Your task to perform on an android device: create a new album in the google photos Image 0: 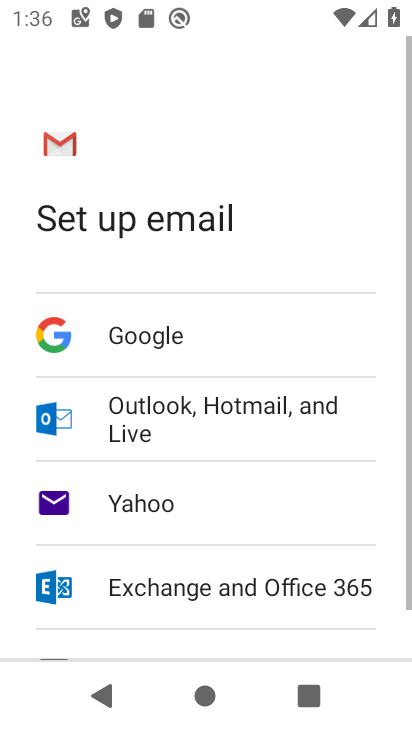
Step 0: press home button
Your task to perform on an android device: create a new album in the google photos Image 1: 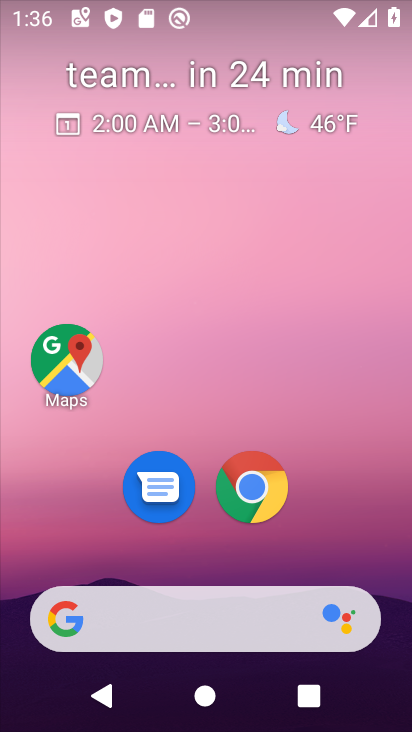
Step 1: drag from (347, 496) to (309, 128)
Your task to perform on an android device: create a new album in the google photos Image 2: 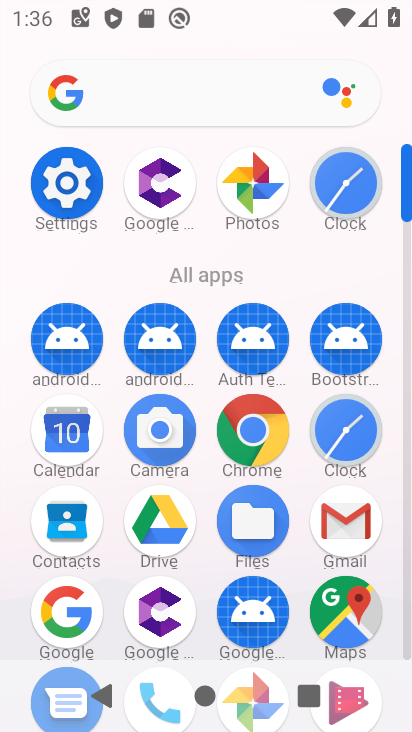
Step 2: drag from (302, 567) to (309, 284)
Your task to perform on an android device: create a new album in the google photos Image 3: 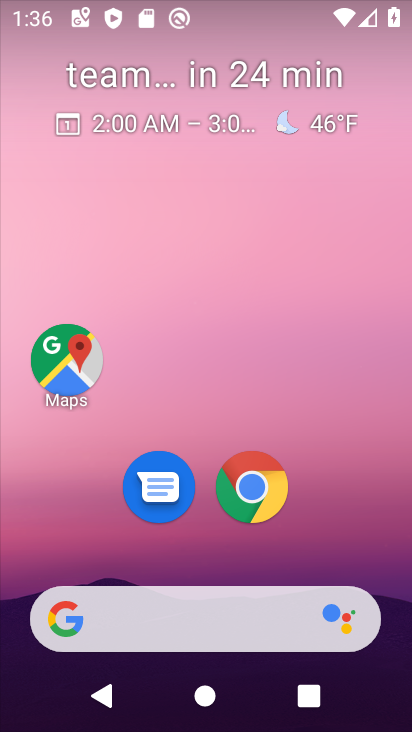
Step 3: drag from (343, 512) to (304, 132)
Your task to perform on an android device: create a new album in the google photos Image 4: 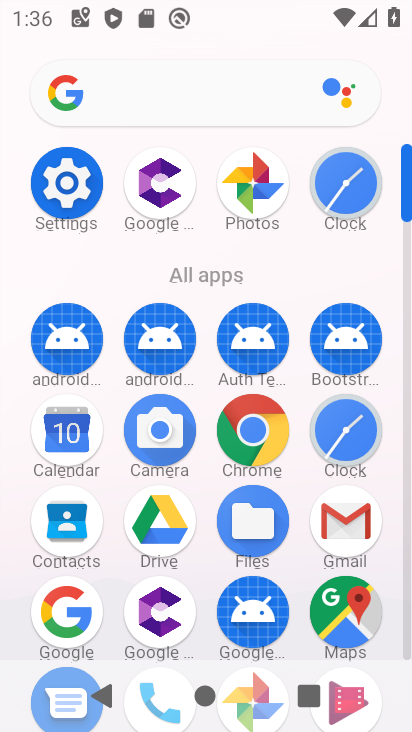
Step 4: drag from (301, 576) to (309, 279)
Your task to perform on an android device: create a new album in the google photos Image 5: 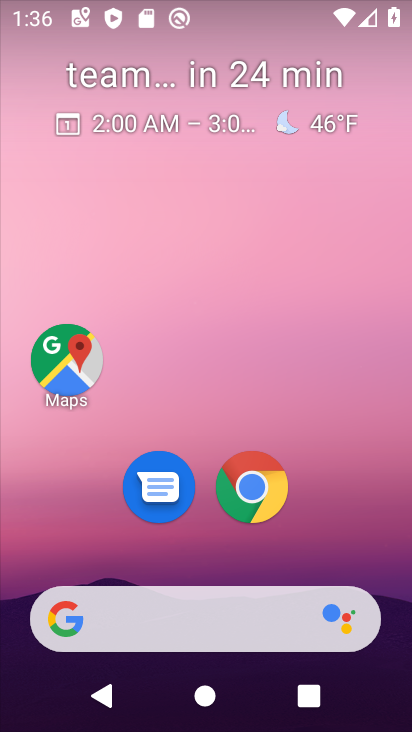
Step 5: drag from (344, 556) to (266, 110)
Your task to perform on an android device: create a new album in the google photos Image 6: 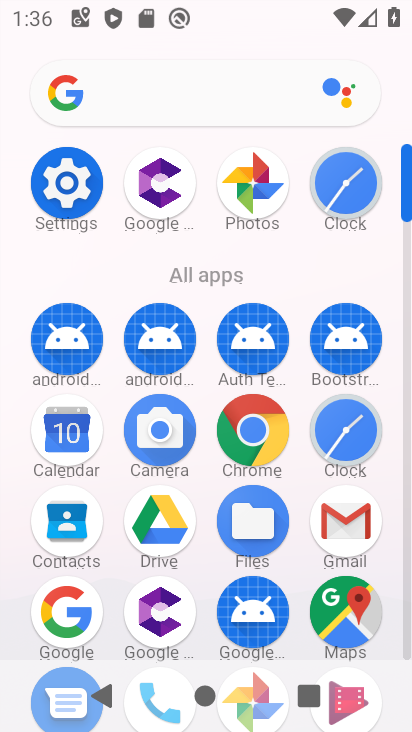
Step 6: drag from (295, 562) to (291, 226)
Your task to perform on an android device: create a new album in the google photos Image 7: 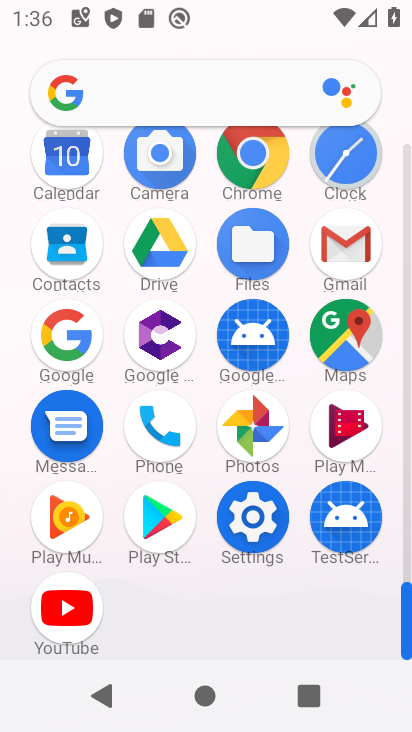
Step 7: click (245, 445)
Your task to perform on an android device: create a new album in the google photos Image 8: 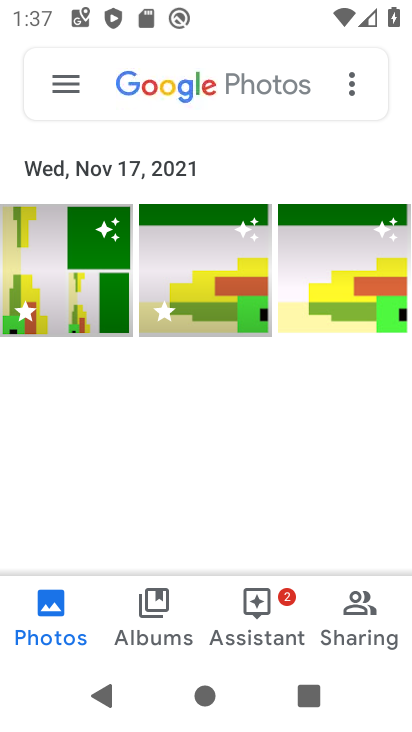
Step 8: click (170, 634)
Your task to perform on an android device: create a new album in the google photos Image 9: 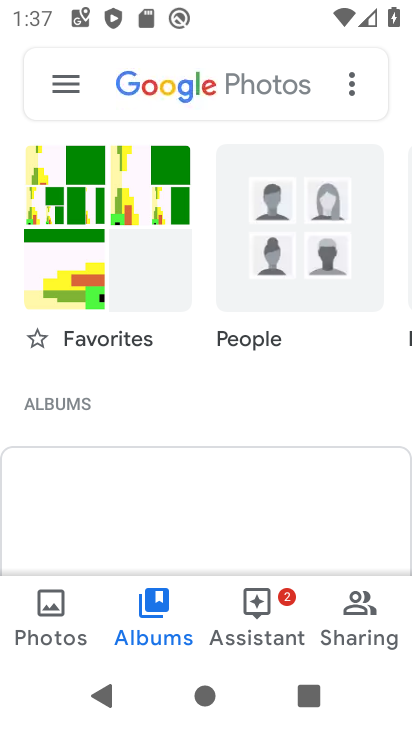
Step 9: click (355, 81)
Your task to perform on an android device: create a new album in the google photos Image 10: 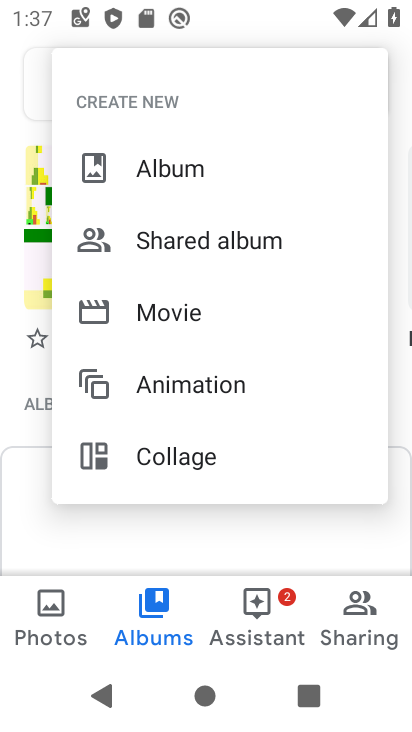
Step 10: click (202, 164)
Your task to perform on an android device: create a new album in the google photos Image 11: 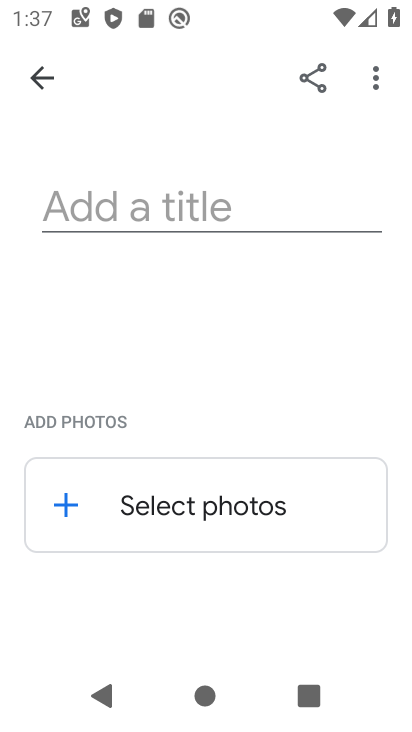
Step 11: click (216, 217)
Your task to perform on an android device: create a new album in the google photos Image 12: 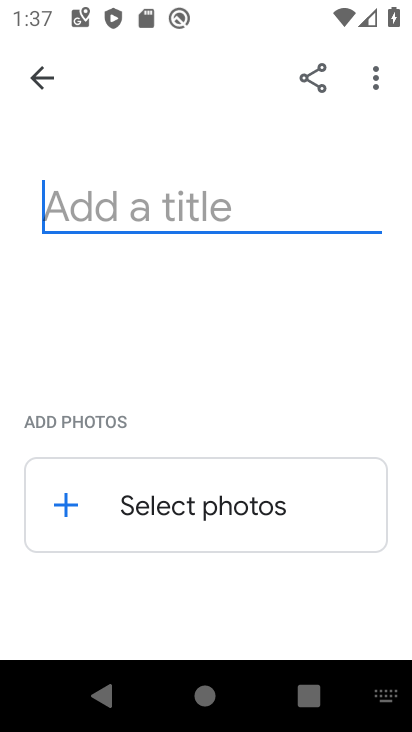
Step 12: type "iophon"
Your task to perform on an android device: create a new album in the google photos Image 13: 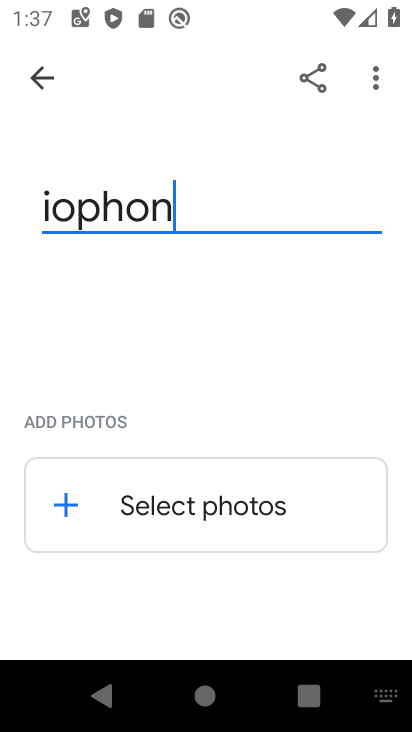
Step 13: click (260, 507)
Your task to perform on an android device: create a new album in the google photos Image 14: 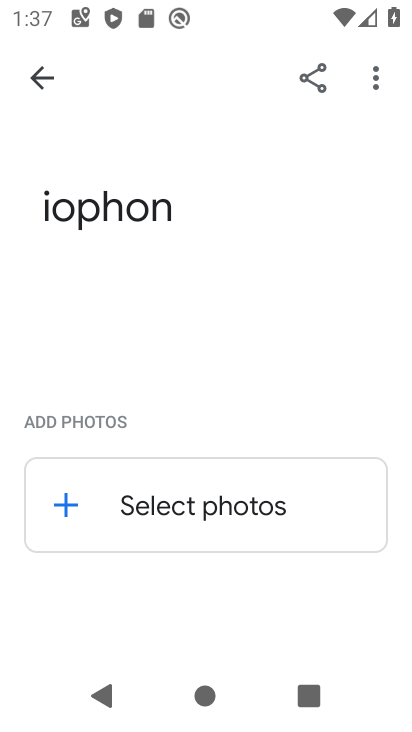
Step 14: click (52, 509)
Your task to perform on an android device: create a new album in the google photos Image 15: 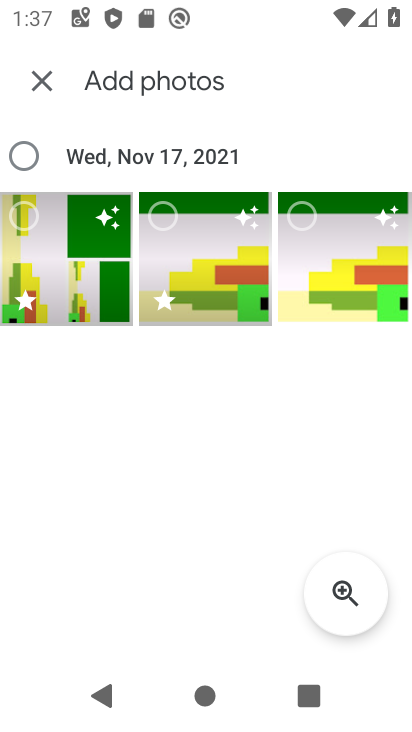
Step 15: click (67, 503)
Your task to perform on an android device: create a new album in the google photos Image 16: 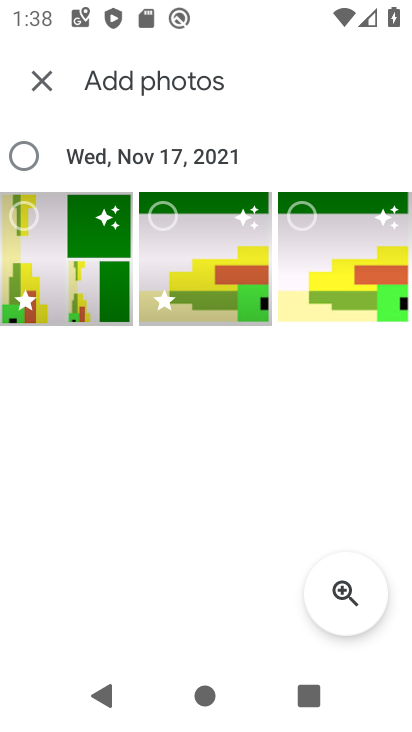
Step 16: click (28, 221)
Your task to perform on an android device: create a new album in the google photos Image 17: 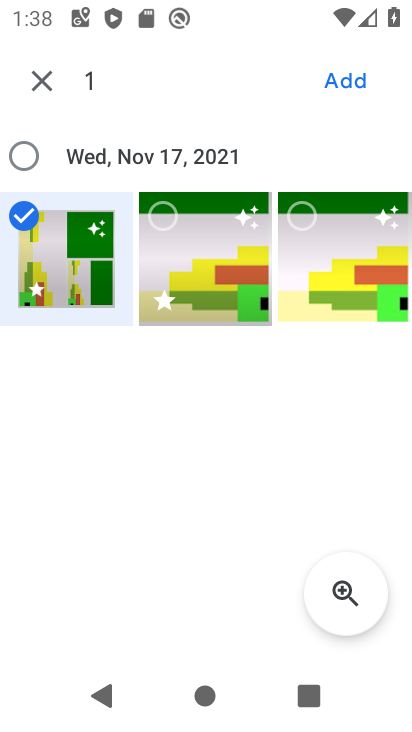
Step 17: click (326, 52)
Your task to perform on an android device: create a new album in the google photos Image 18: 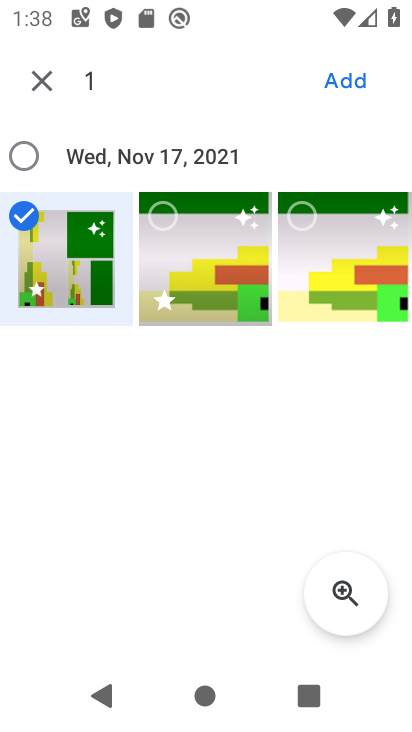
Step 18: click (347, 81)
Your task to perform on an android device: create a new album in the google photos Image 19: 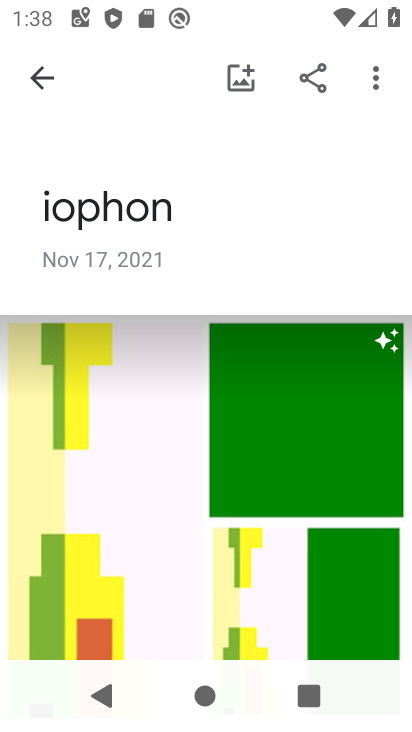
Step 19: task complete